Your task to perform on an android device: add a contact in the contacts app Image 0: 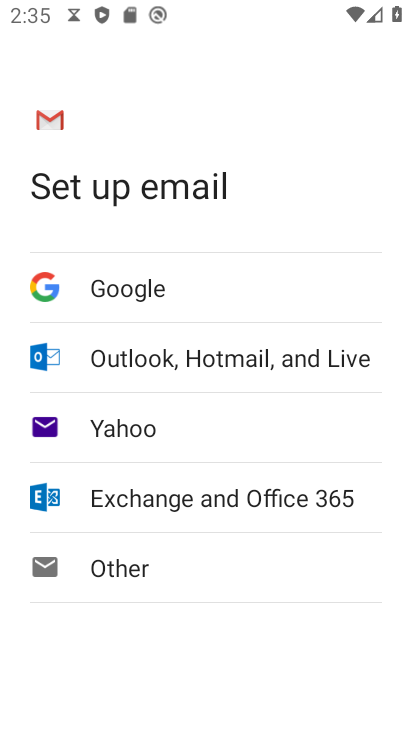
Step 0: press home button
Your task to perform on an android device: add a contact in the contacts app Image 1: 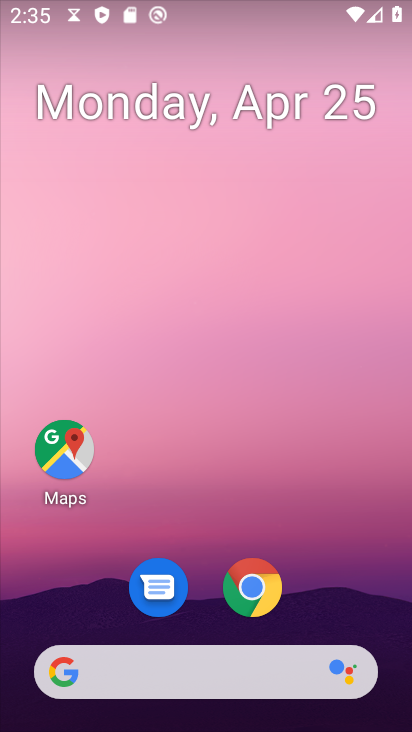
Step 1: drag from (205, 526) to (193, 100)
Your task to perform on an android device: add a contact in the contacts app Image 2: 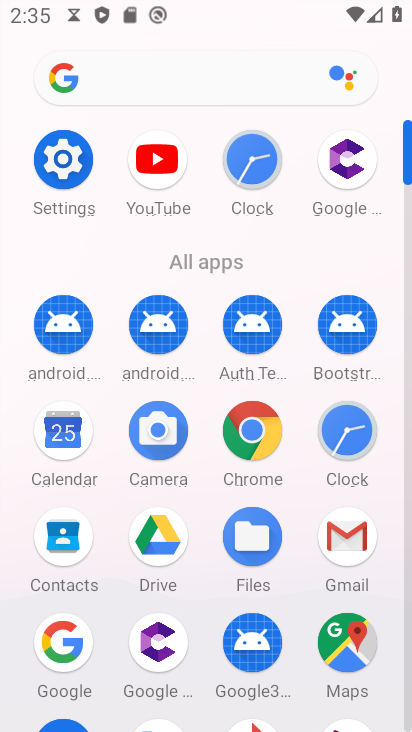
Step 2: click (64, 546)
Your task to perform on an android device: add a contact in the contacts app Image 3: 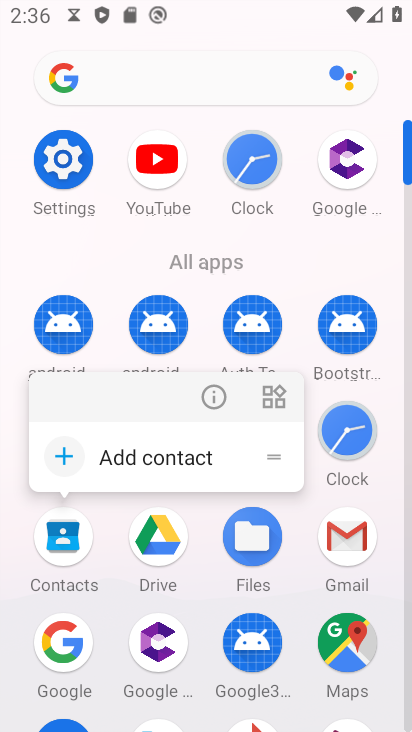
Step 3: click (205, 411)
Your task to perform on an android device: add a contact in the contacts app Image 4: 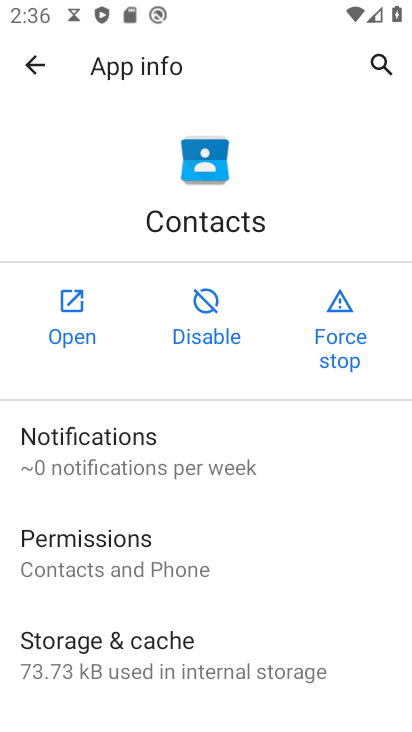
Step 4: click (71, 333)
Your task to perform on an android device: add a contact in the contacts app Image 5: 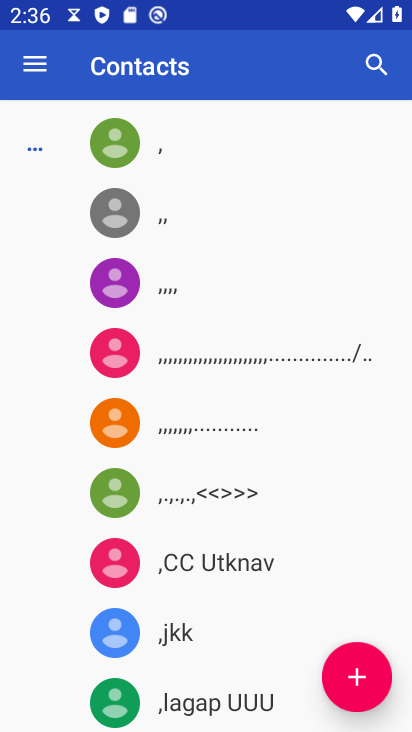
Step 5: click (345, 680)
Your task to perform on an android device: add a contact in the contacts app Image 6: 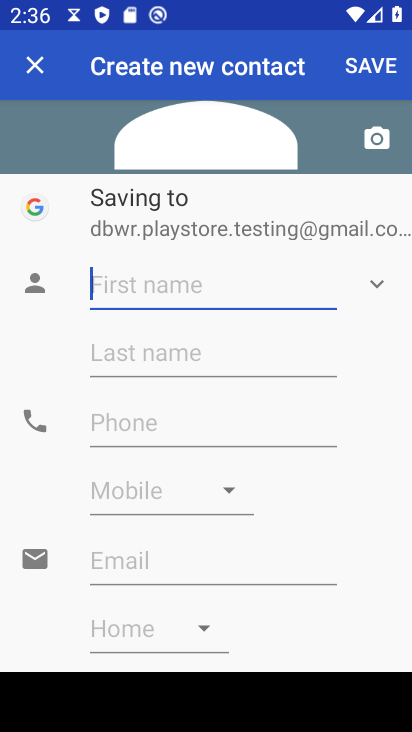
Step 6: click (175, 288)
Your task to perform on an android device: add a contact in the contacts app Image 7: 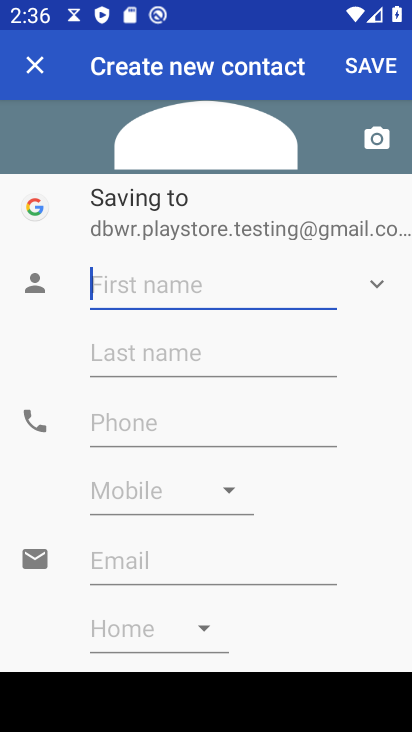
Step 7: type "tfhtfrjr"
Your task to perform on an android device: add a contact in the contacts app Image 8: 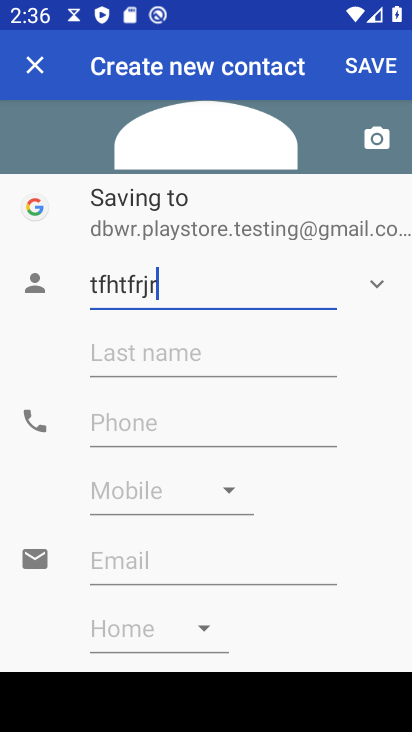
Step 8: type ""
Your task to perform on an android device: add a contact in the contacts app Image 9: 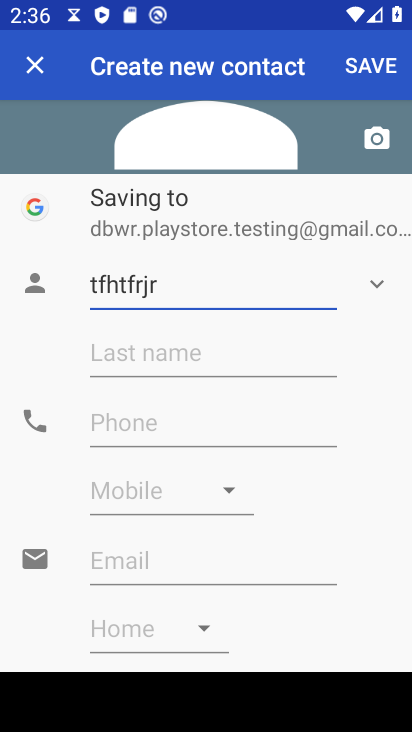
Step 9: click (361, 67)
Your task to perform on an android device: add a contact in the contacts app Image 10: 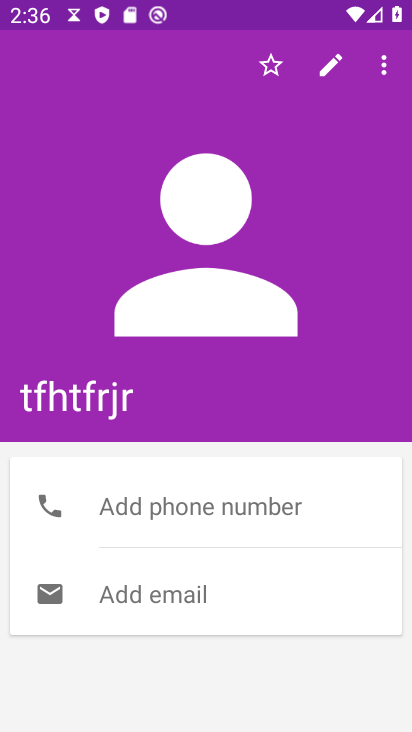
Step 10: task complete